Your task to perform on an android device: Search for sushi restaurants on Maps Image 0: 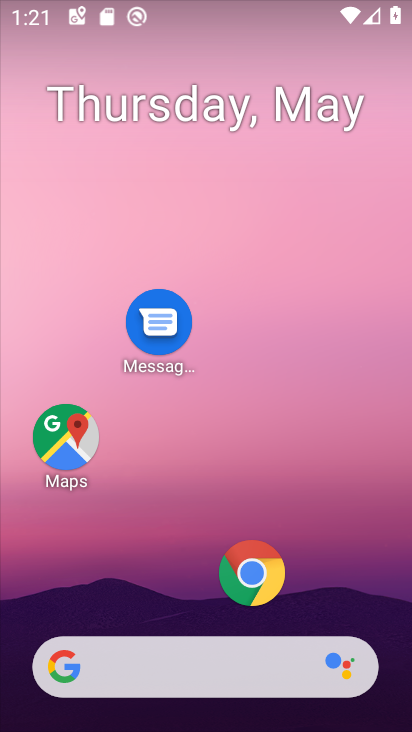
Step 0: drag from (190, 343) to (190, 144)
Your task to perform on an android device: Search for sushi restaurants on Maps Image 1: 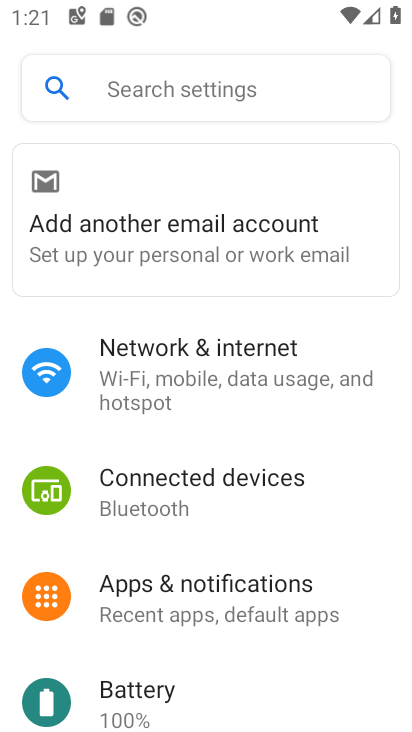
Step 1: press home button
Your task to perform on an android device: Search for sushi restaurants on Maps Image 2: 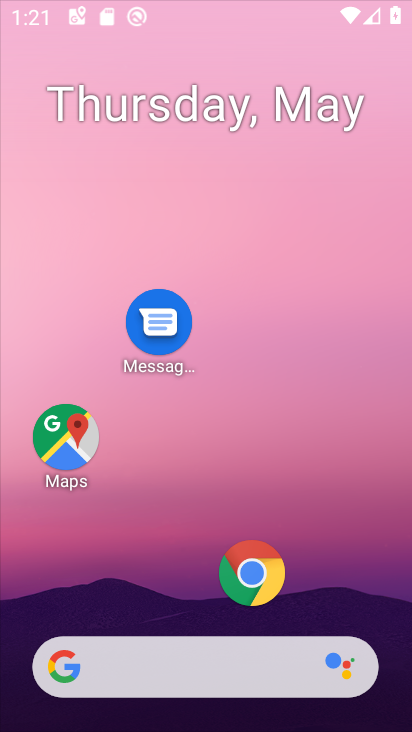
Step 2: drag from (198, 647) to (240, 122)
Your task to perform on an android device: Search for sushi restaurants on Maps Image 3: 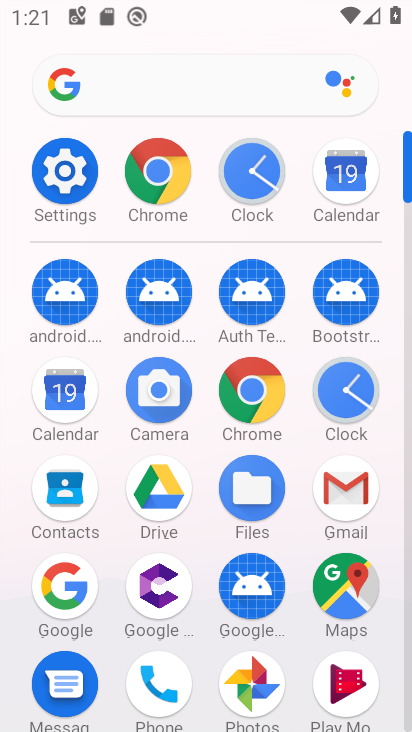
Step 3: click (332, 577)
Your task to perform on an android device: Search for sushi restaurants on Maps Image 4: 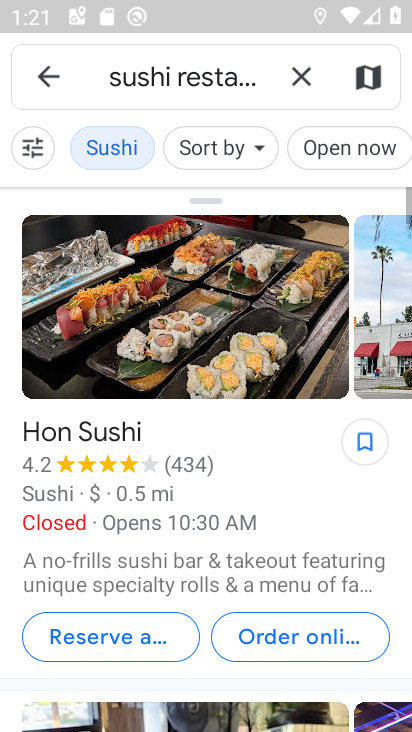
Step 4: task complete